Your task to perform on an android device: add a label to a message in the gmail app Image 0: 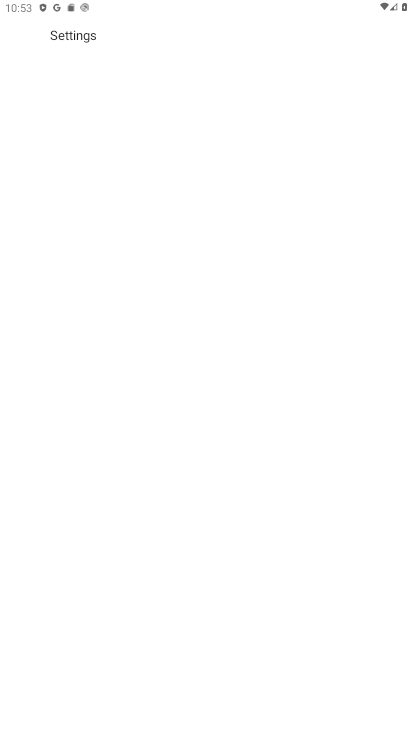
Step 0: click (224, 663)
Your task to perform on an android device: add a label to a message in the gmail app Image 1: 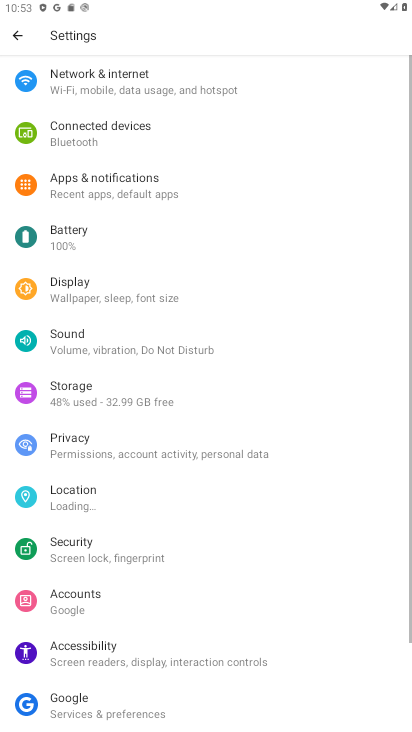
Step 1: press home button
Your task to perform on an android device: add a label to a message in the gmail app Image 2: 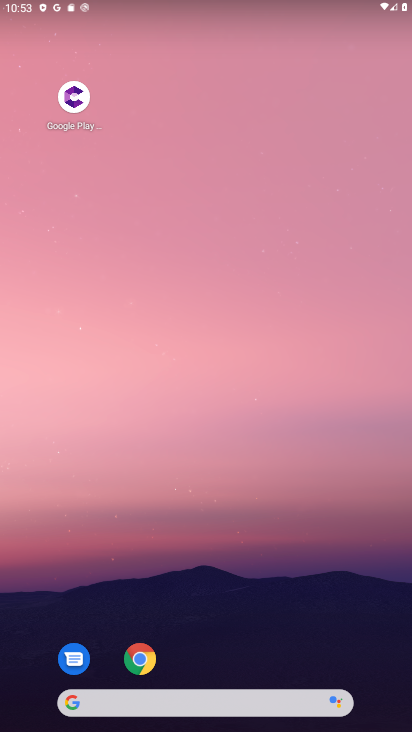
Step 2: drag from (226, 670) to (194, 80)
Your task to perform on an android device: add a label to a message in the gmail app Image 3: 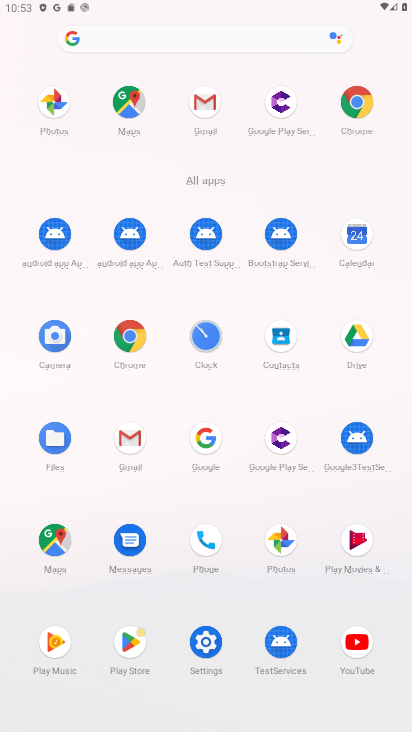
Step 3: click (203, 106)
Your task to perform on an android device: add a label to a message in the gmail app Image 4: 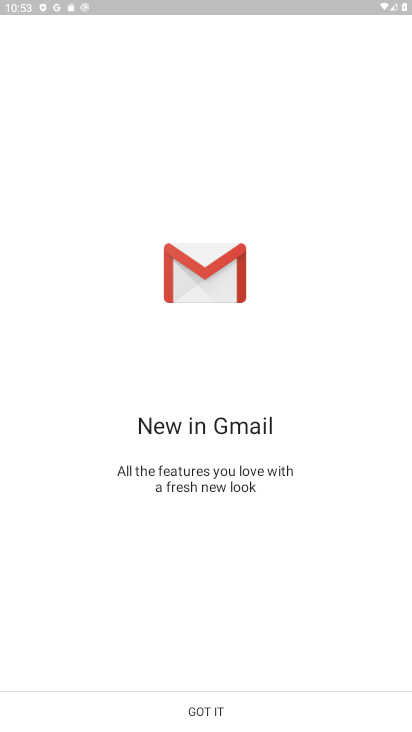
Step 4: click (220, 715)
Your task to perform on an android device: add a label to a message in the gmail app Image 5: 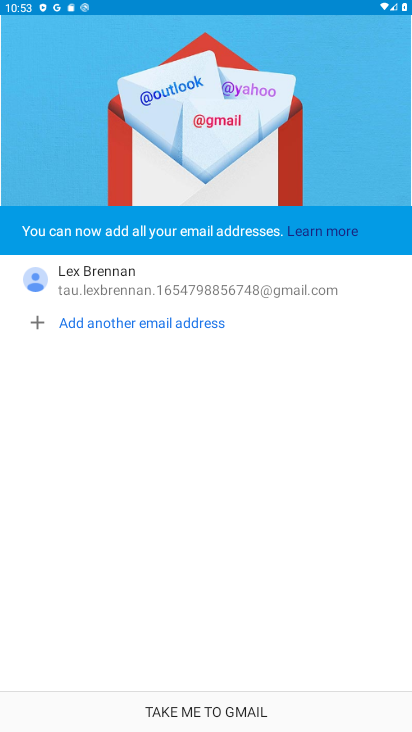
Step 5: click (220, 715)
Your task to perform on an android device: add a label to a message in the gmail app Image 6: 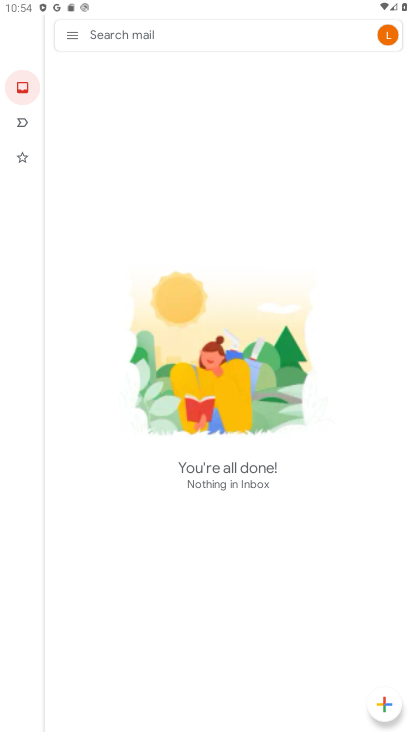
Step 6: click (74, 40)
Your task to perform on an android device: add a label to a message in the gmail app Image 7: 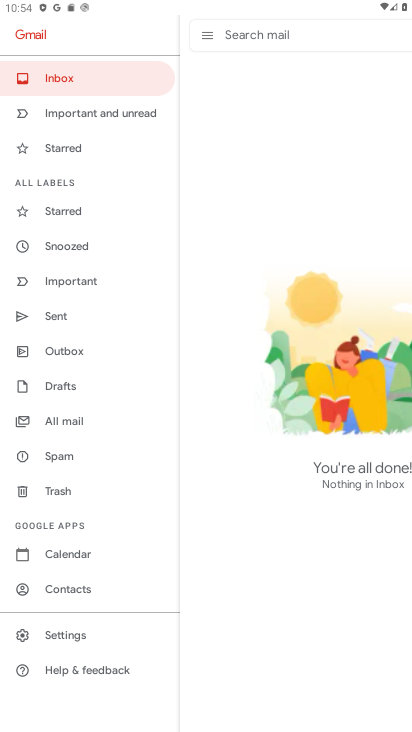
Step 7: task complete